Your task to perform on an android device: When is my next appointment? Image 0: 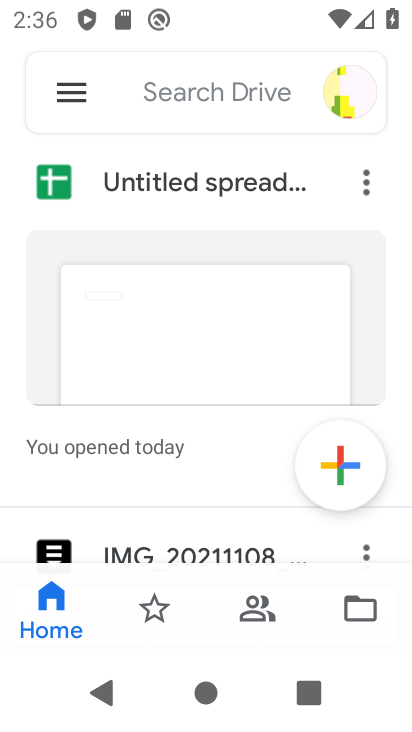
Step 0: press home button
Your task to perform on an android device: When is my next appointment? Image 1: 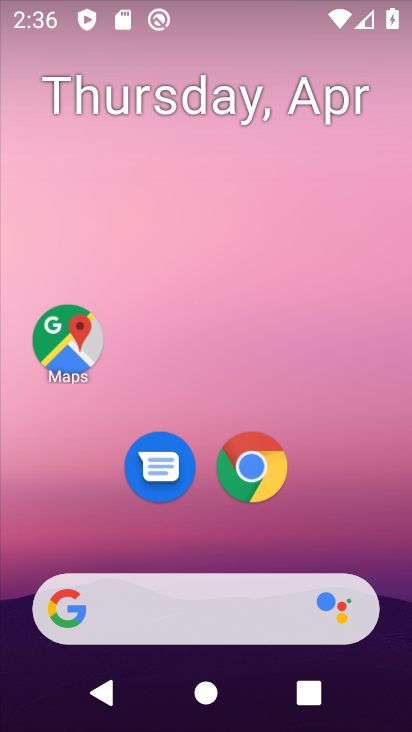
Step 1: drag from (307, 527) to (300, 144)
Your task to perform on an android device: When is my next appointment? Image 2: 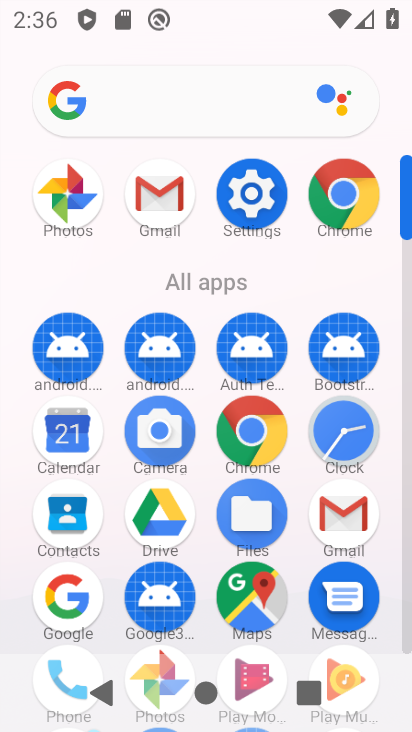
Step 2: click (82, 437)
Your task to perform on an android device: When is my next appointment? Image 3: 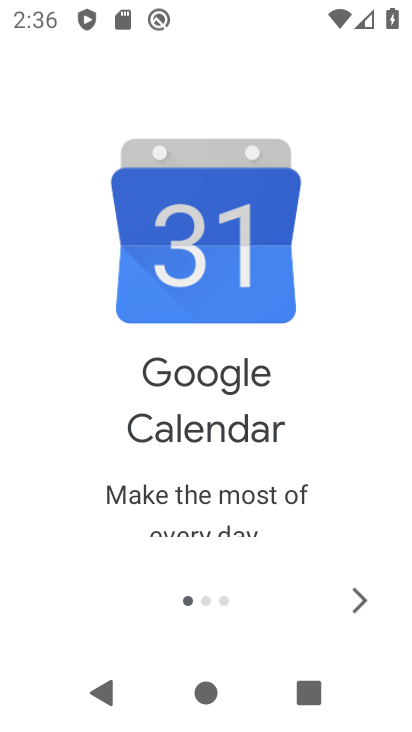
Step 3: click (354, 595)
Your task to perform on an android device: When is my next appointment? Image 4: 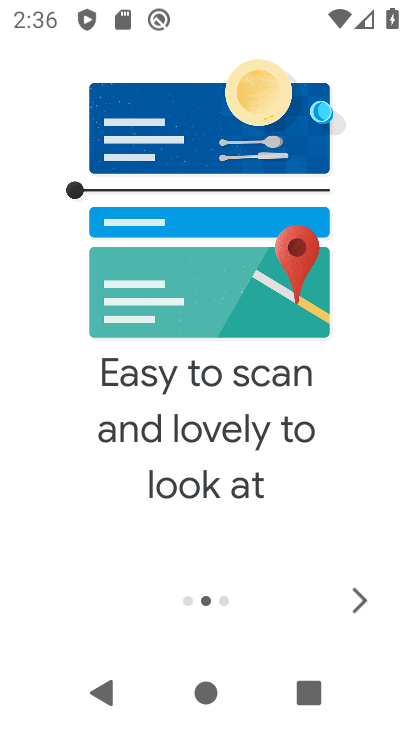
Step 4: click (354, 595)
Your task to perform on an android device: When is my next appointment? Image 5: 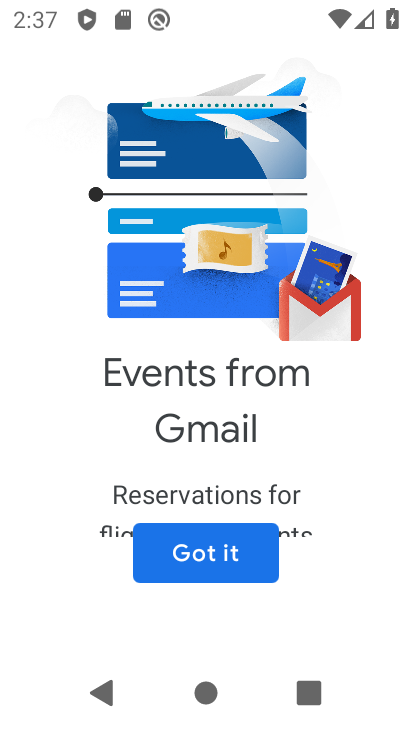
Step 5: click (254, 555)
Your task to perform on an android device: When is my next appointment? Image 6: 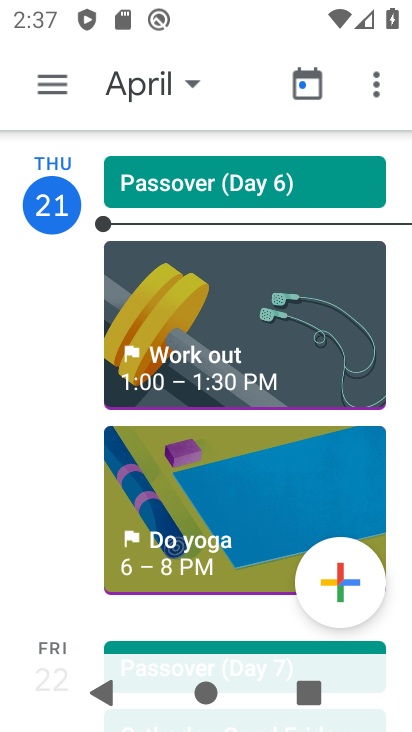
Step 6: task complete